Your task to perform on an android device: Open sound settings Image 0: 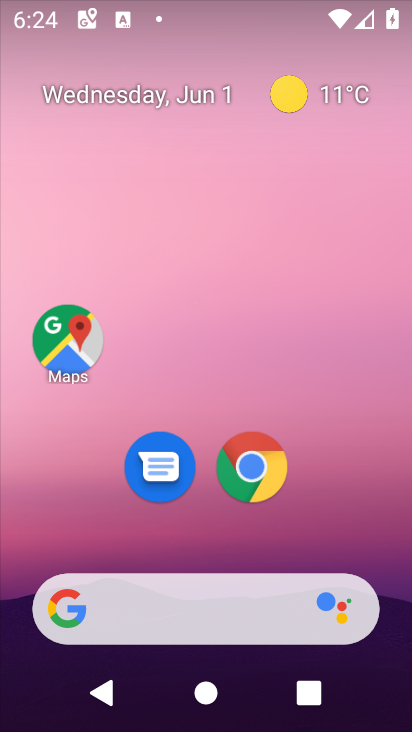
Step 0: drag from (287, 414) to (185, 41)
Your task to perform on an android device: Open sound settings Image 1: 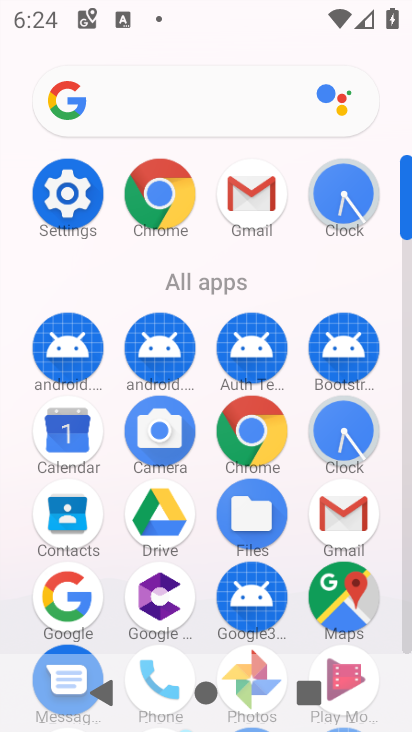
Step 1: click (65, 175)
Your task to perform on an android device: Open sound settings Image 2: 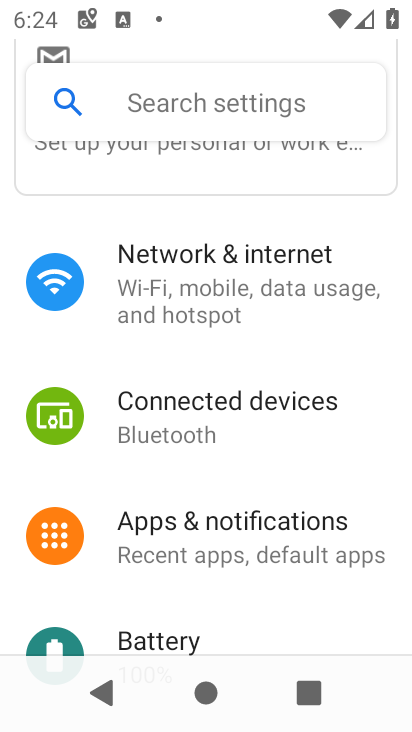
Step 2: drag from (274, 473) to (263, 136)
Your task to perform on an android device: Open sound settings Image 3: 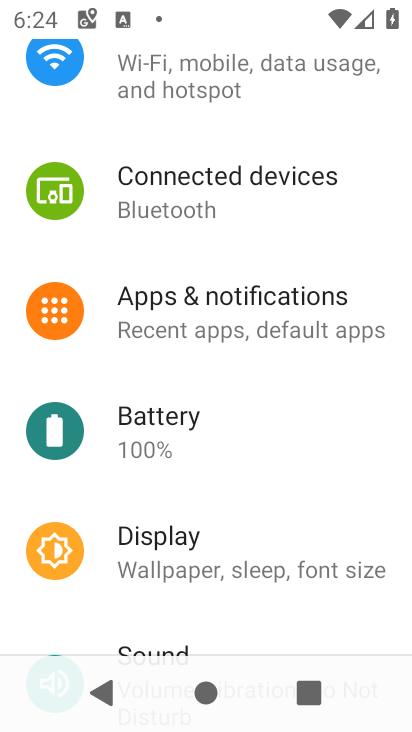
Step 3: drag from (227, 357) to (235, 168)
Your task to perform on an android device: Open sound settings Image 4: 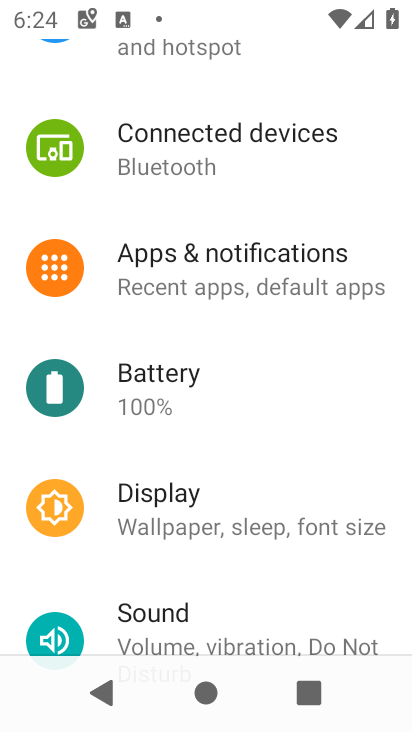
Step 4: click (192, 622)
Your task to perform on an android device: Open sound settings Image 5: 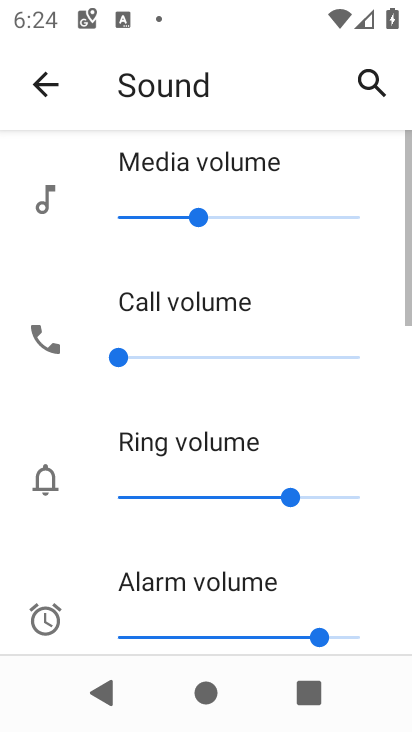
Step 5: task complete